Your task to perform on an android device: Show me productivity apps on the Play Store Image 0: 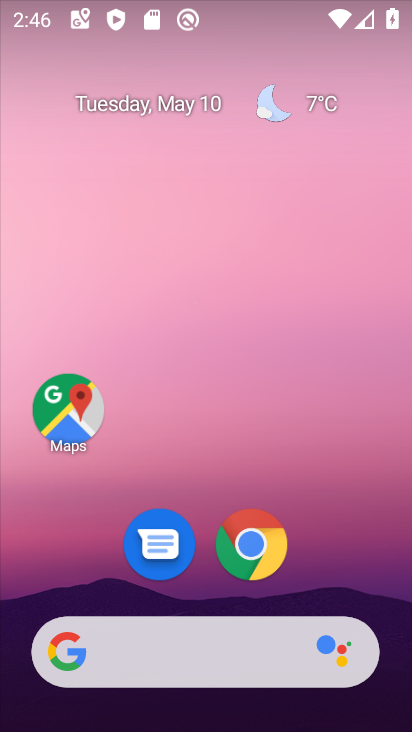
Step 0: drag from (378, 596) to (366, 215)
Your task to perform on an android device: Show me productivity apps on the Play Store Image 1: 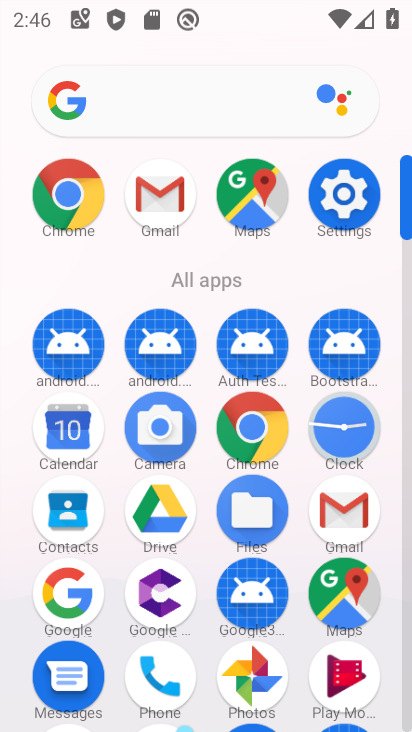
Step 1: drag from (195, 633) to (195, 316)
Your task to perform on an android device: Show me productivity apps on the Play Store Image 2: 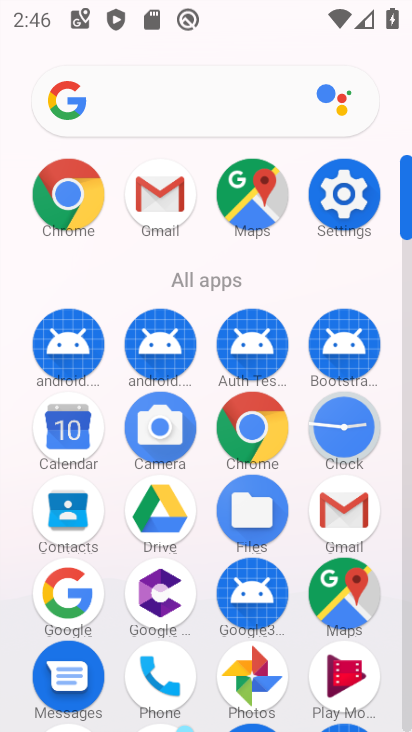
Step 2: drag from (198, 590) to (209, 259)
Your task to perform on an android device: Show me productivity apps on the Play Store Image 3: 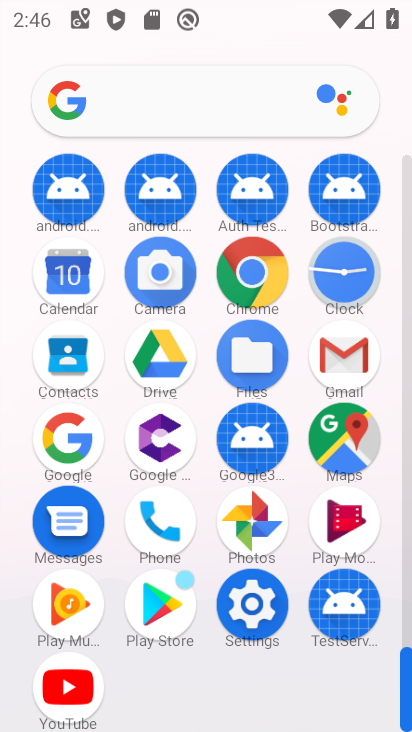
Step 3: click (143, 623)
Your task to perform on an android device: Show me productivity apps on the Play Store Image 4: 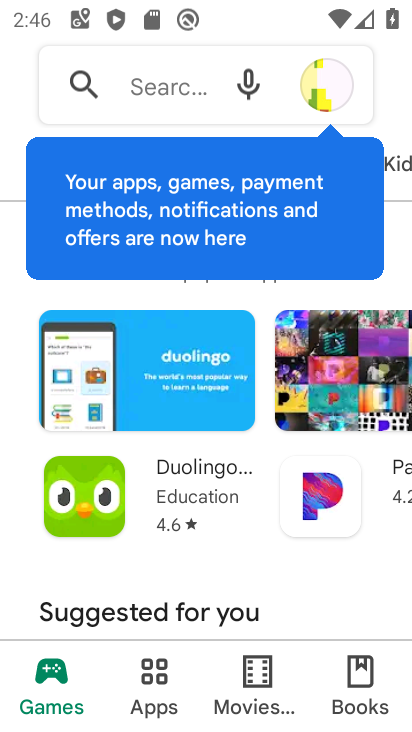
Step 4: click (155, 693)
Your task to perform on an android device: Show me productivity apps on the Play Store Image 5: 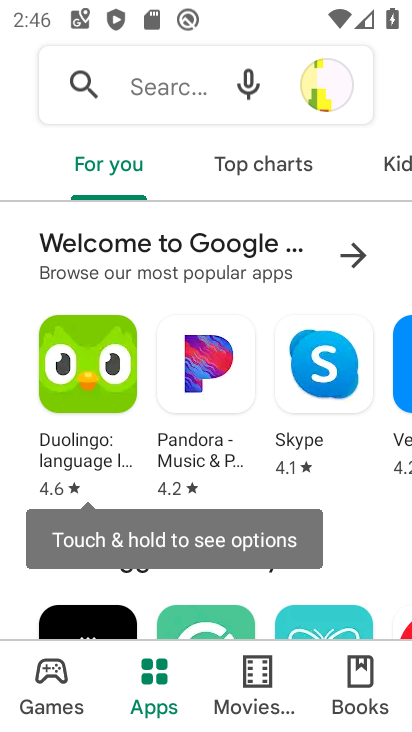
Step 5: drag from (380, 164) to (123, 163)
Your task to perform on an android device: Show me productivity apps on the Play Store Image 6: 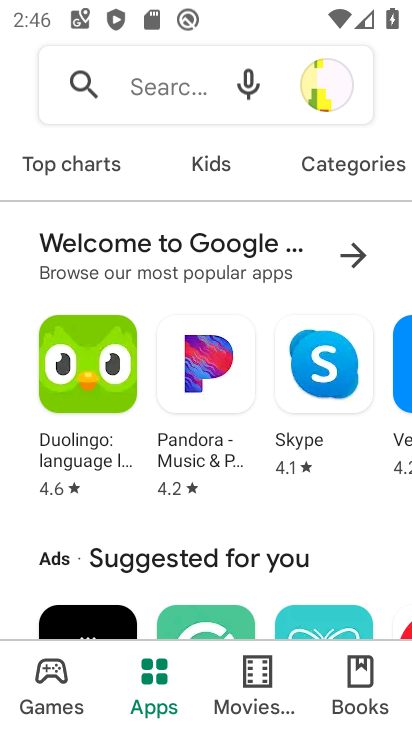
Step 6: click (366, 163)
Your task to perform on an android device: Show me productivity apps on the Play Store Image 7: 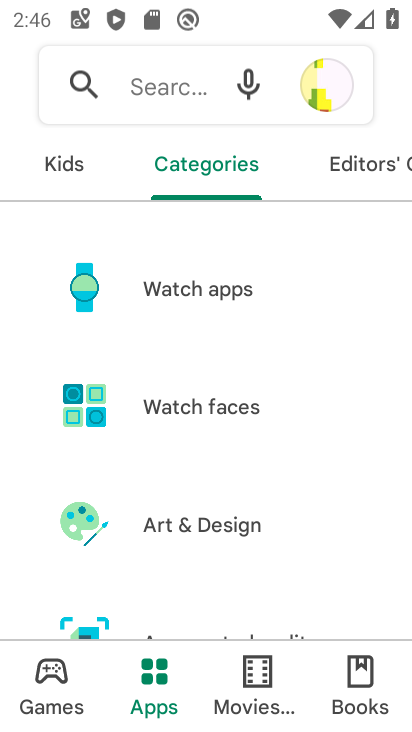
Step 7: drag from (173, 587) to (224, 253)
Your task to perform on an android device: Show me productivity apps on the Play Store Image 8: 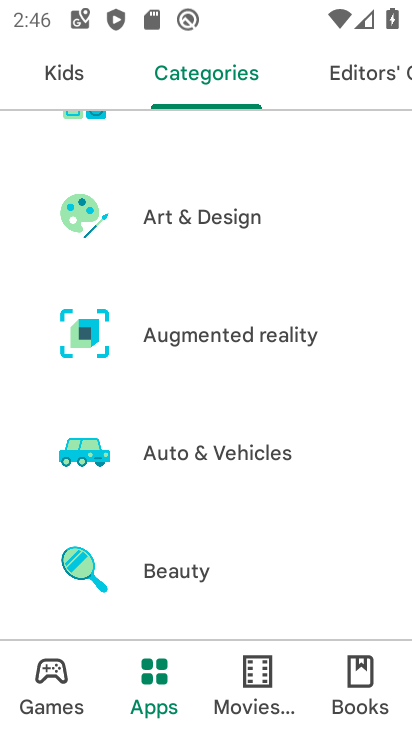
Step 8: drag from (199, 597) to (289, 229)
Your task to perform on an android device: Show me productivity apps on the Play Store Image 9: 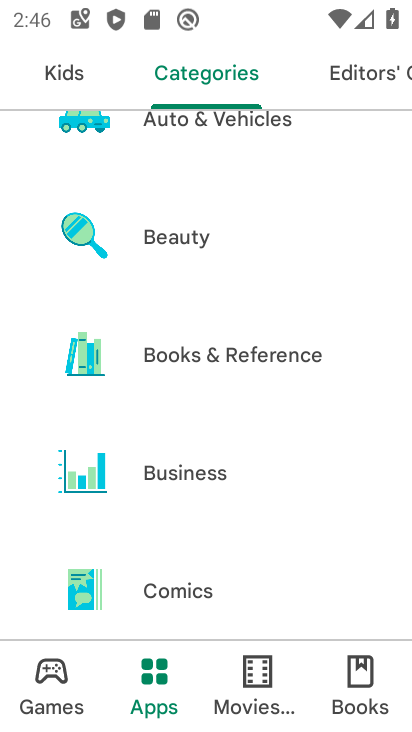
Step 9: drag from (233, 599) to (370, 159)
Your task to perform on an android device: Show me productivity apps on the Play Store Image 10: 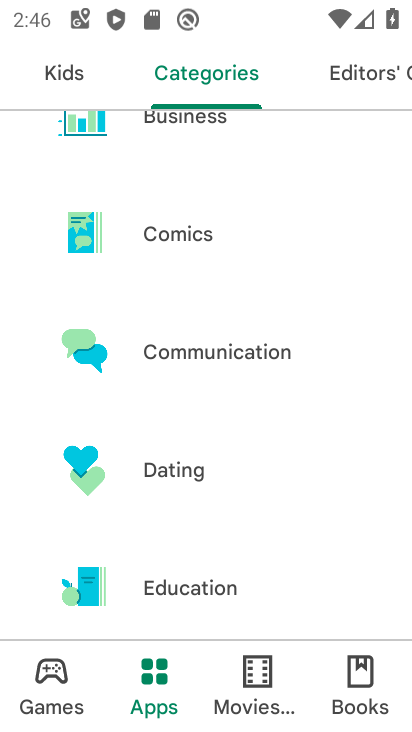
Step 10: drag from (204, 584) to (331, 216)
Your task to perform on an android device: Show me productivity apps on the Play Store Image 11: 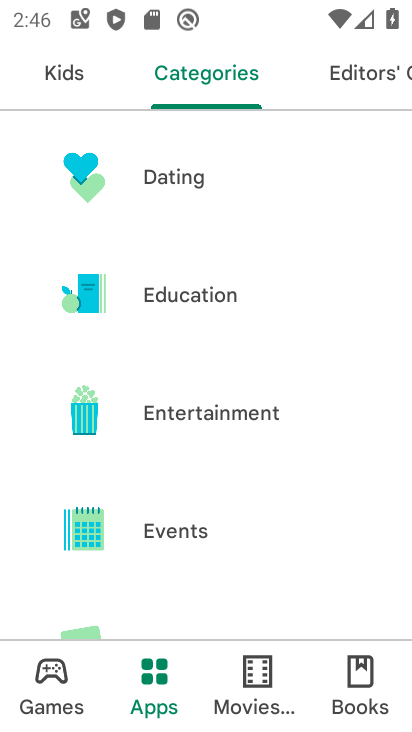
Step 11: drag from (232, 595) to (335, 196)
Your task to perform on an android device: Show me productivity apps on the Play Store Image 12: 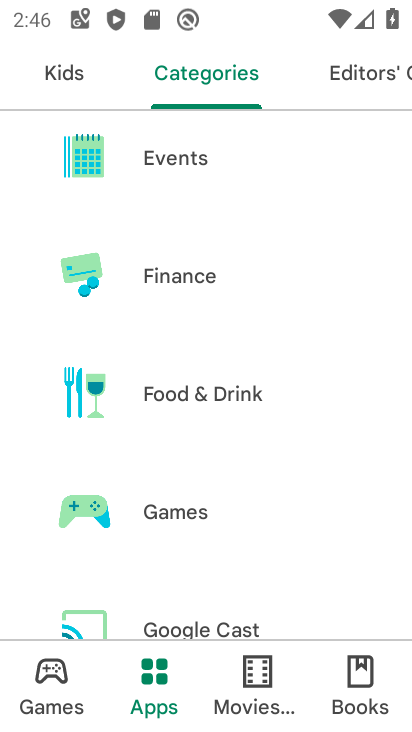
Step 12: drag from (181, 607) to (292, 242)
Your task to perform on an android device: Show me productivity apps on the Play Store Image 13: 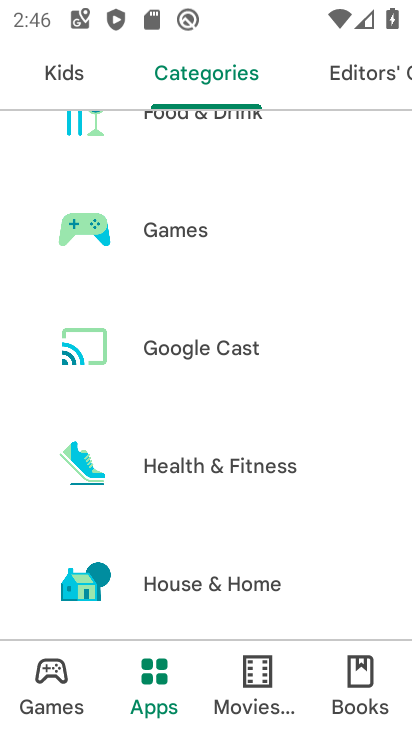
Step 13: drag from (194, 583) to (301, 239)
Your task to perform on an android device: Show me productivity apps on the Play Store Image 14: 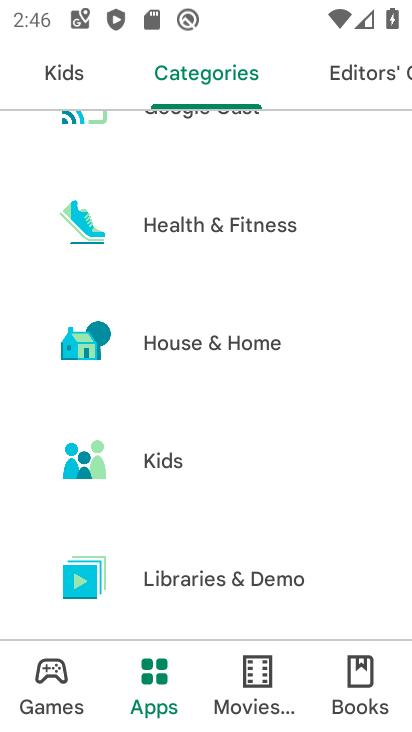
Step 14: drag from (153, 589) to (288, 204)
Your task to perform on an android device: Show me productivity apps on the Play Store Image 15: 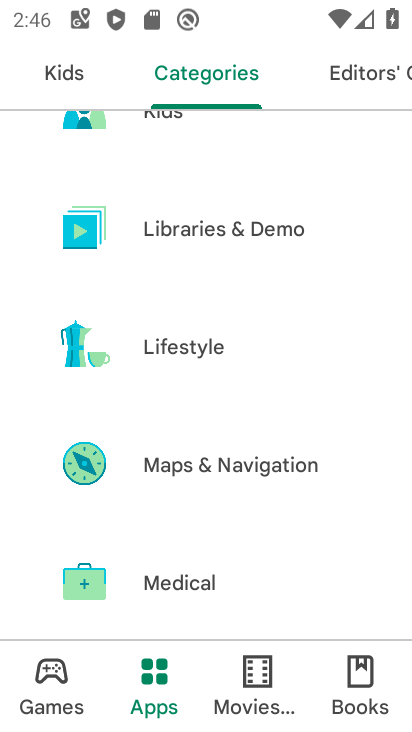
Step 15: drag from (173, 524) to (302, 203)
Your task to perform on an android device: Show me productivity apps on the Play Store Image 16: 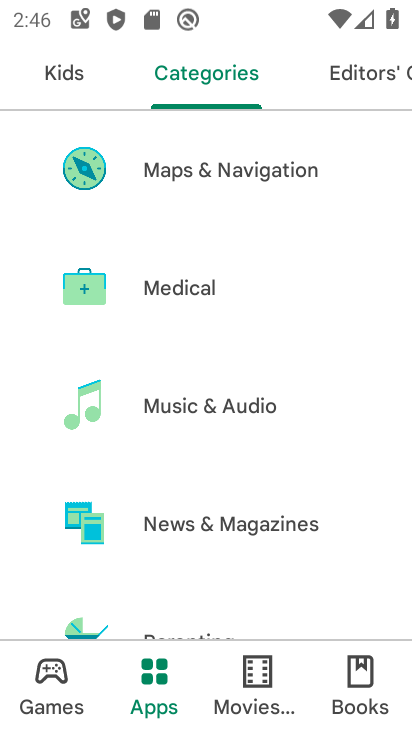
Step 16: drag from (127, 535) to (289, 232)
Your task to perform on an android device: Show me productivity apps on the Play Store Image 17: 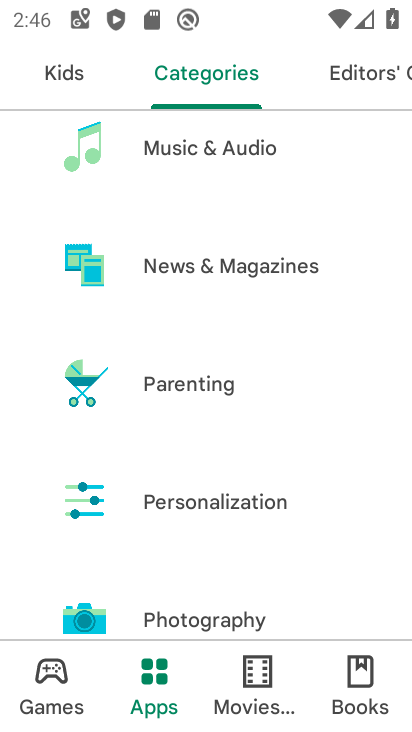
Step 17: drag from (166, 568) to (289, 220)
Your task to perform on an android device: Show me productivity apps on the Play Store Image 18: 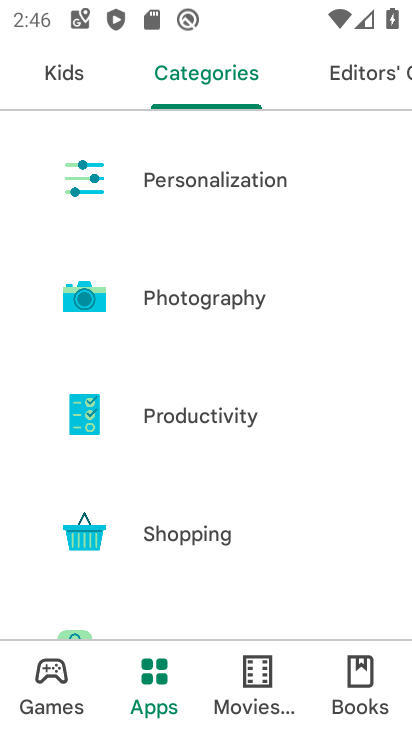
Step 18: click (192, 422)
Your task to perform on an android device: Show me productivity apps on the Play Store Image 19: 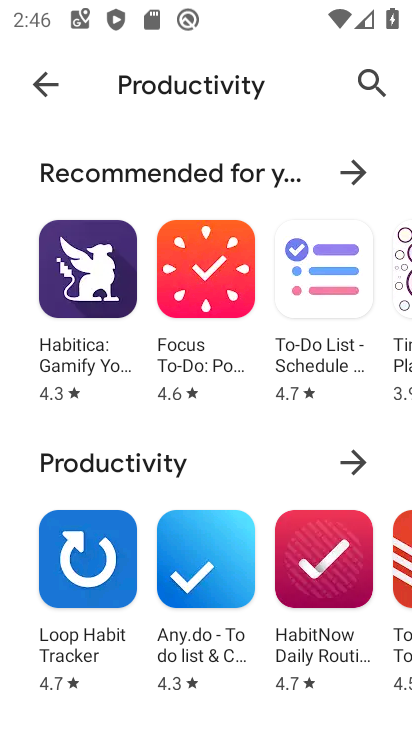
Step 19: task complete